Your task to perform on an android device: Open calendar and show me the third week of next month Image 0: 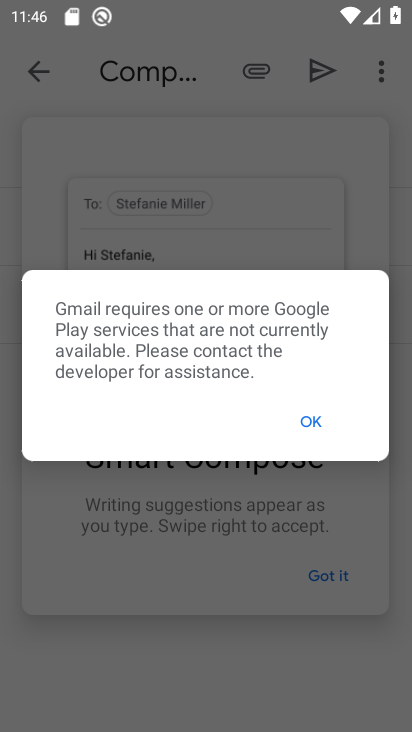
Step 0: press home button
Your task to perform on an android device: Open calendar and show me the third week of next month Image 1: 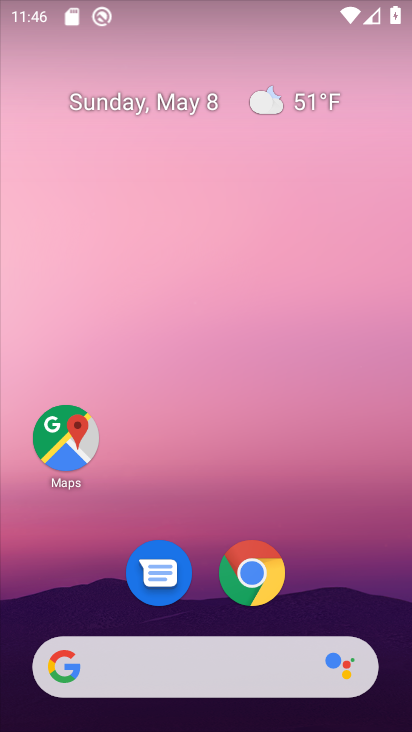
Step 1: drag from (176, 634) to (220, 131)
Your task to perform on an android device: Open calendar and show me the third week of next month Image 2: 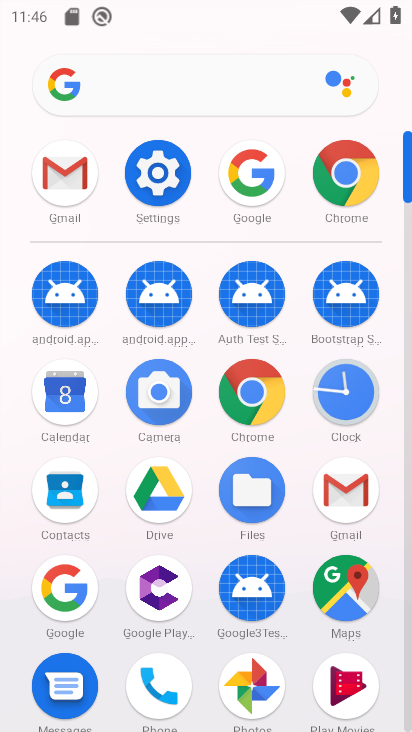
Step 2: click (66, 412)
Your task to perform on an android device: Open calendar and show me the third week of next month Image 3: 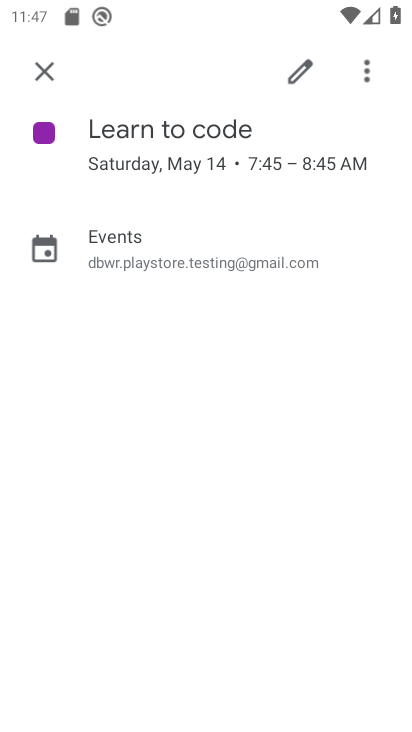
Step 3: press back button
Your task to perform on an android device: Open calendar and show me the third week of next month Image 4: 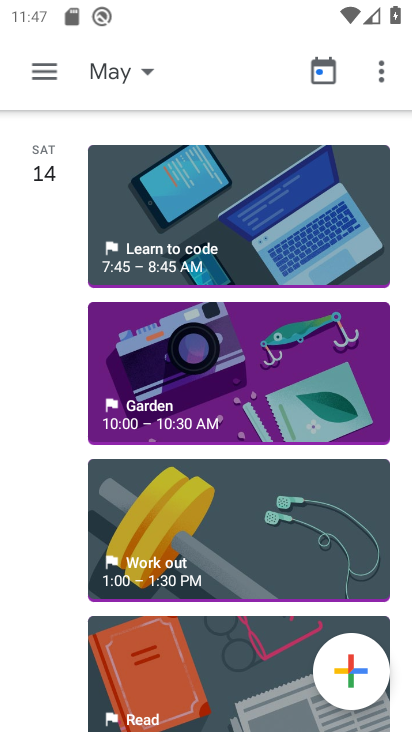
Step 4: click (122, 69)
Your task to perform on an android device: Open calendar and show me the third week of next month Image 5: 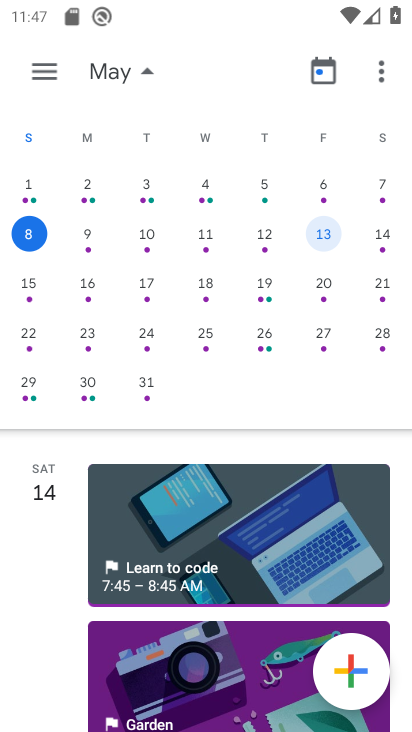
Step 5: drag from (328, 281) to (32, 335)
Your task to perform on an android device: Open calendar and show me the third week of next month Image 6: 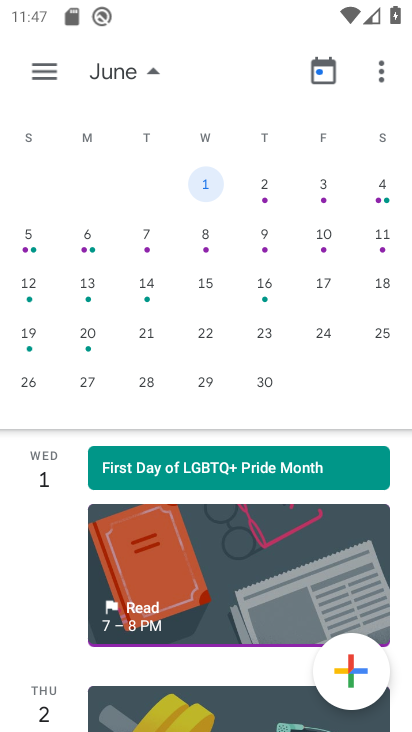
Step 6: click (24, 288)
Your task to perform on an android device: Open calendar and show me the third week of next month Image 7: 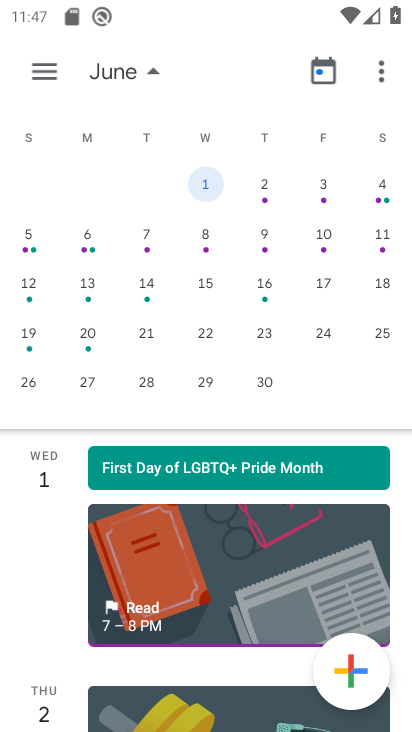
Step 7: click (36, 292)
Your task to perform on an android device: Open calendar and show me the third week of next month Image 8: 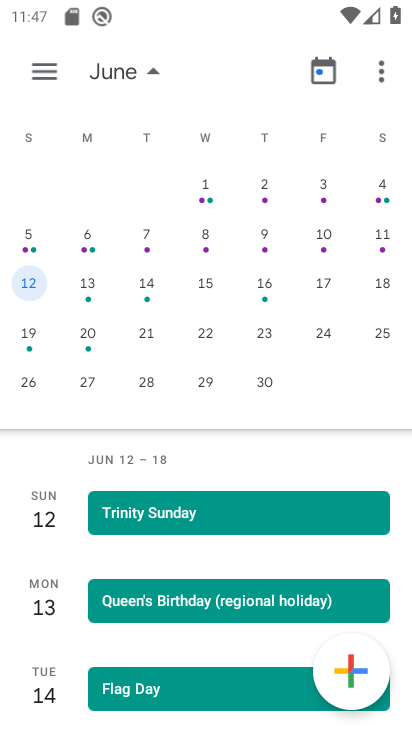
Step 8: task complete